Your task to perform on an android device: What's on my calendar tomorrow? Image 0: 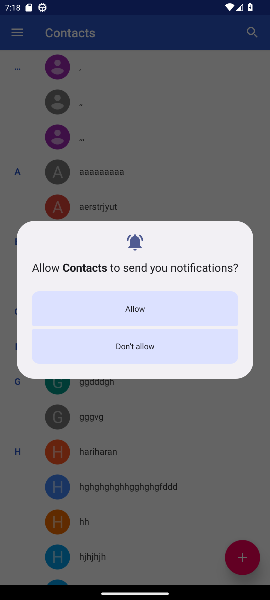
Step 0: press back button
Your task to perform on an android device: What's on my calendar tomorrow? Image 1: 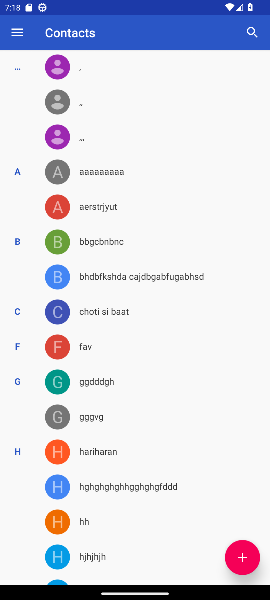
Step 1: press home button
Your task to perform on an android device: What's on my calendar tomorrow? Image 2: 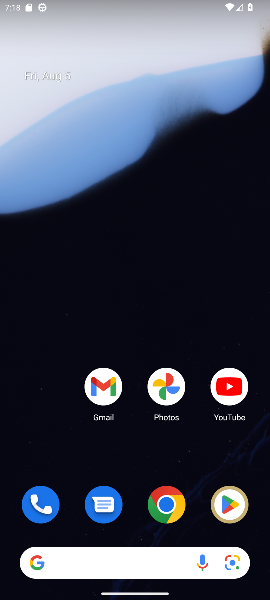
Step 2: drag from (113, 556) to (108, 104)
Your task to perform on an android device: What's on my calendar tomorrow? Image 3: 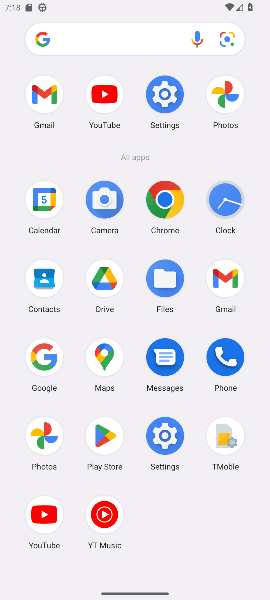
Step 3: click (49, 211)
Your task to perform on an android device: What's on my calendar tomorrow? Image 4: 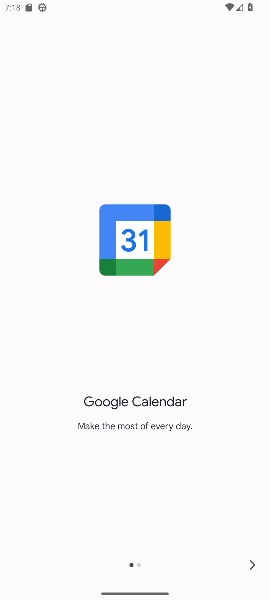
Step 4: click (247, 567)
Your task to perform on an android device: What's on my calendar tomorrow? Image 5: 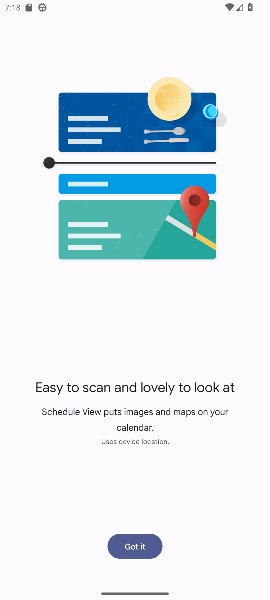
Step 5: click (154, 550)
Your task to perform on an android device: What's on my calendar tomorrow? Image 6: 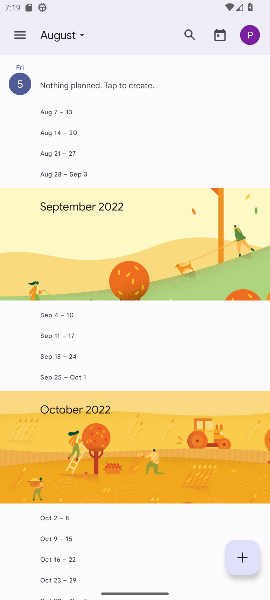
Step 6: click (22, 38)
Your task to perform on an android device: What's on my calendar tomorrow? Image 7: 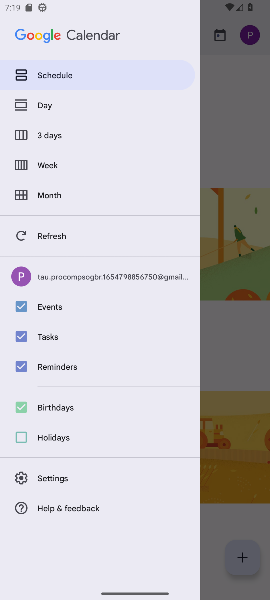
Step 7: click (74, 79)
Your task to perform on an android device: What's on my calendar tomorrow? Image 8: 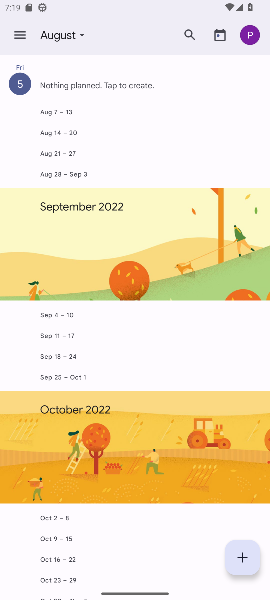
Step 8: task complete